Your task to perform on an android device: show emergency info Image 0: 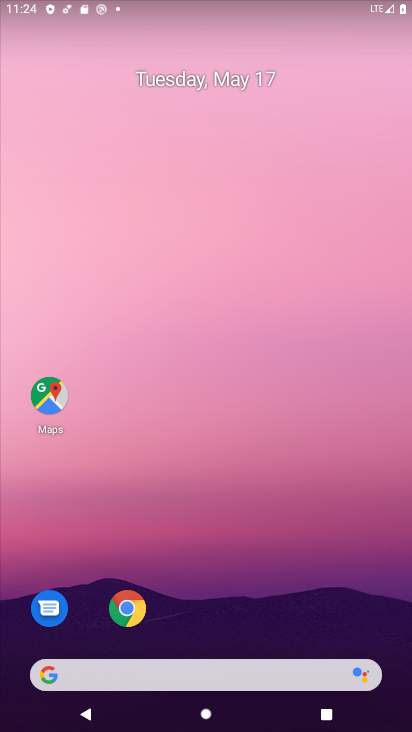
Step 0: drag from (269, 505) to (199, 48)
Your task to perform on an android device: show emergency info Image 1: 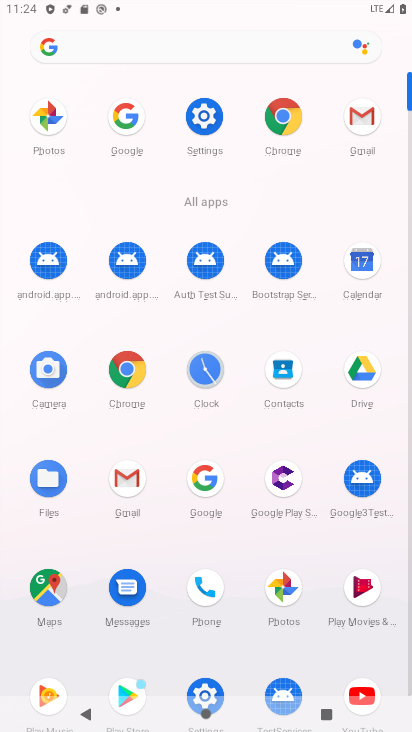
Step 1: click (210, 114)
Your task to perform on an android device: show emergency info Image 2: 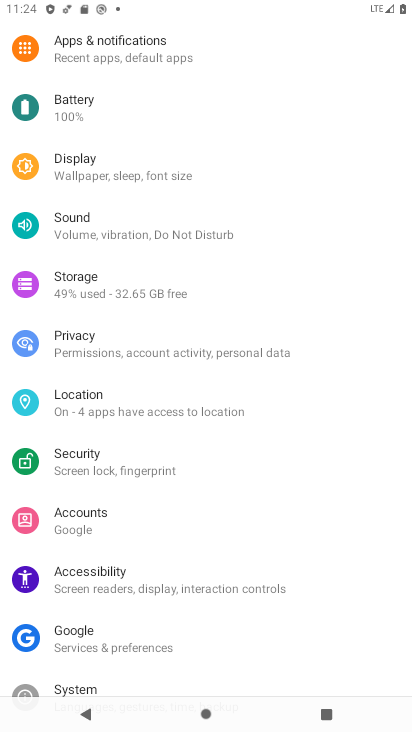
Step 2: drag from (208, 623) to (200, 128)
Your task to perform on an android device: show emergency info Image 3: 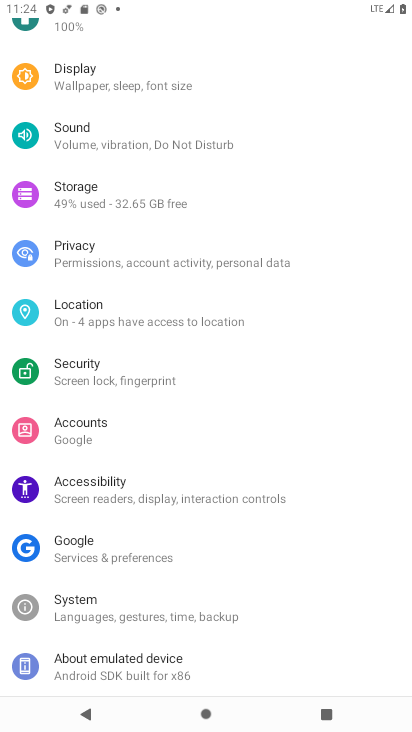
Step 3: click (198, 654)
Your task to perform on an android device: show emergency info Image 4: 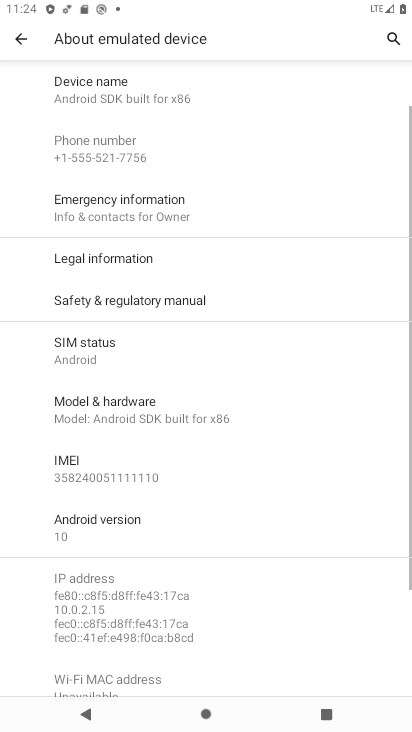
Step 4: click (154, 210)
Your task to perform on an android device: show emergency info Image 5: 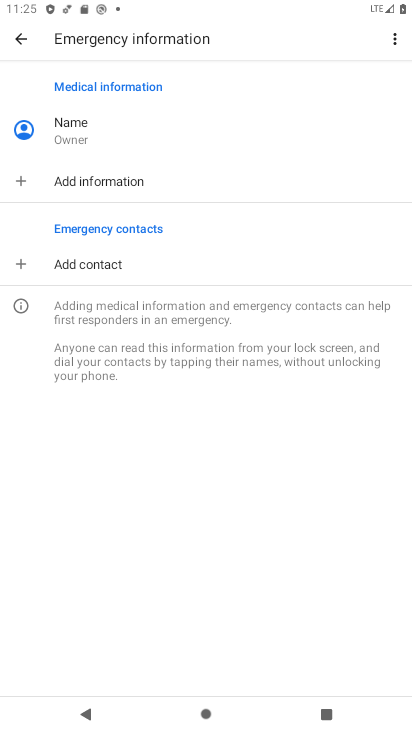
Step 5: task complete